Your task to perform on an android device: What's a good restaurant in Sacramento? Image 0: 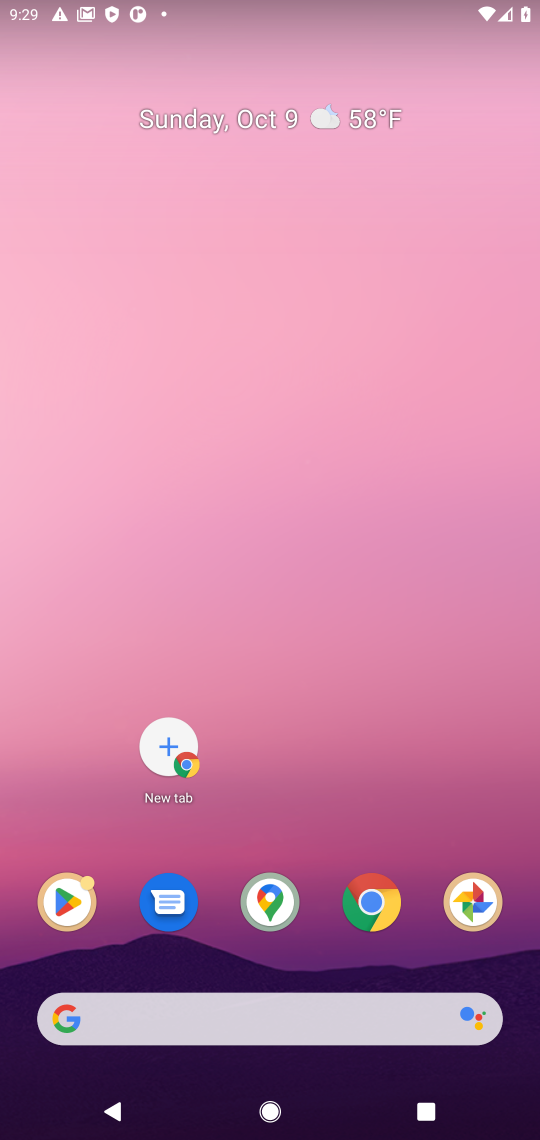
Step 0: click (363, 899)
Your task to perform on an android device: What's a good restaurant in Sacramento? Image 1: 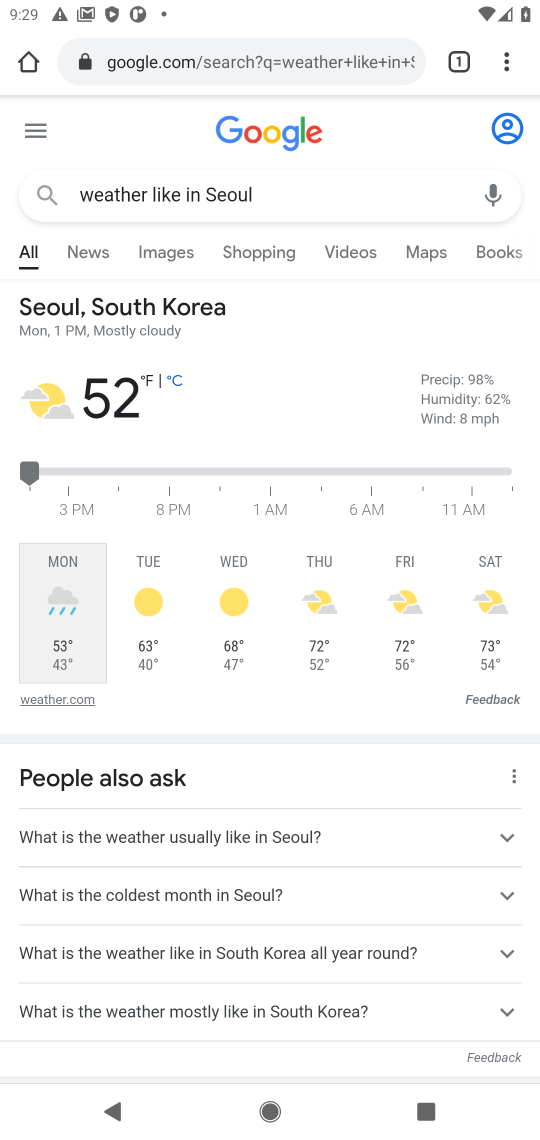
Step 1: click (310, 65)
Your task to perform on an android device: What's a good restaurant in Sacramento? Image 2: 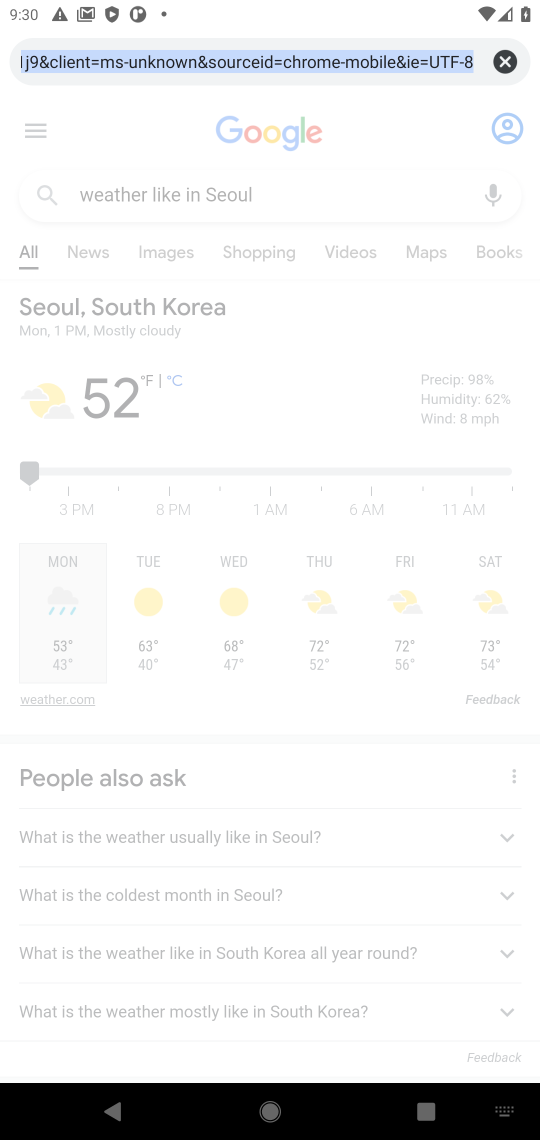
Step 2: type "good restaurant in Sacramento"
Your task to perform on an android device: What's a good restaurant in Sacramento? Image 3: 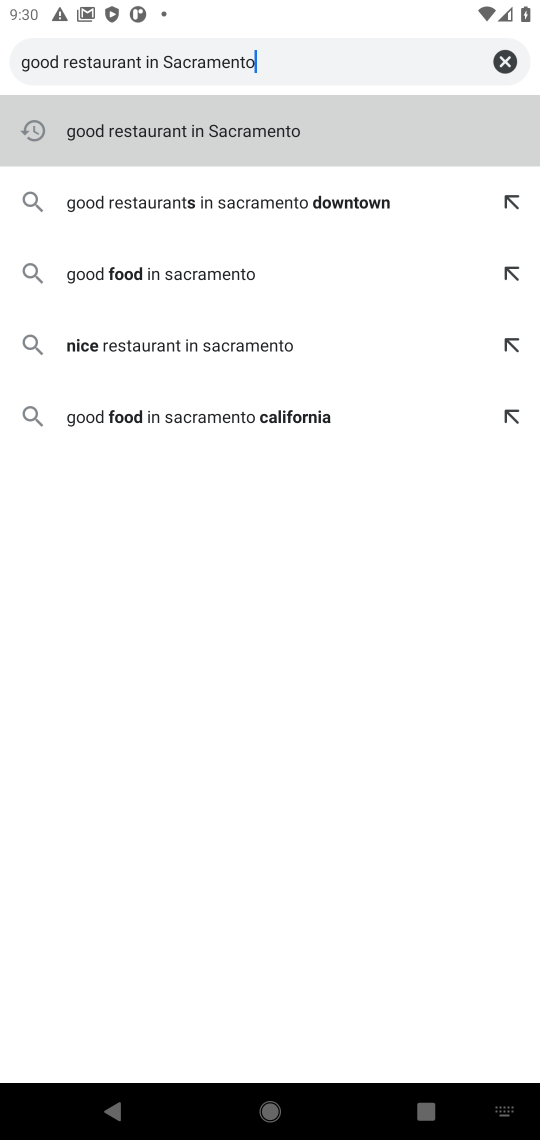
Step 3: click (328, 141)
Your task to perform on an android device: What's a good restaurant in Sacramento? Image 4: 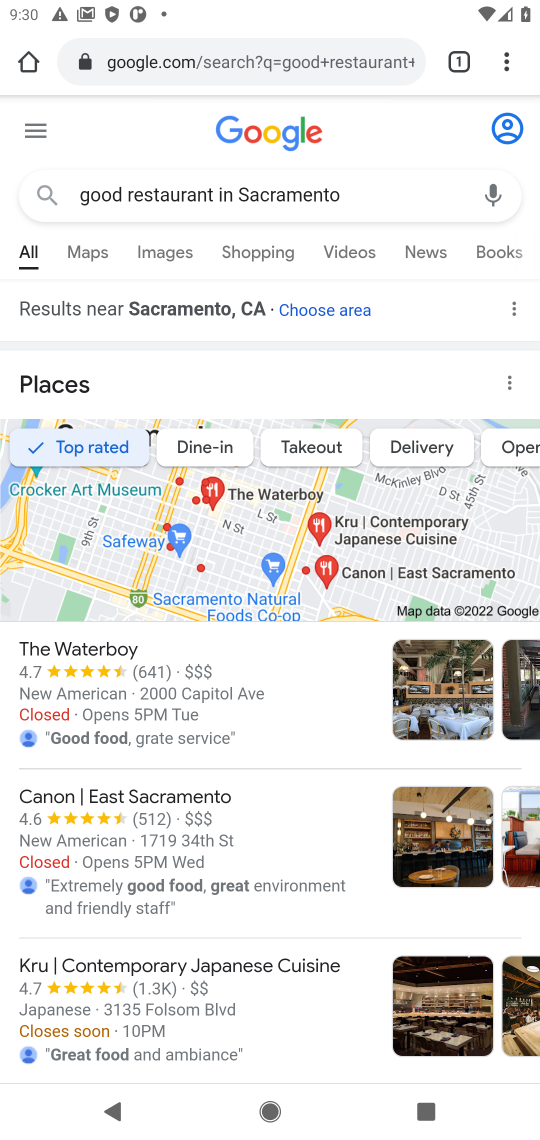
Step 4: drag from (291, 851) to (287, 410)
Your task to perform on an android device: What's a good restaurant in Sacramento? Image 5: 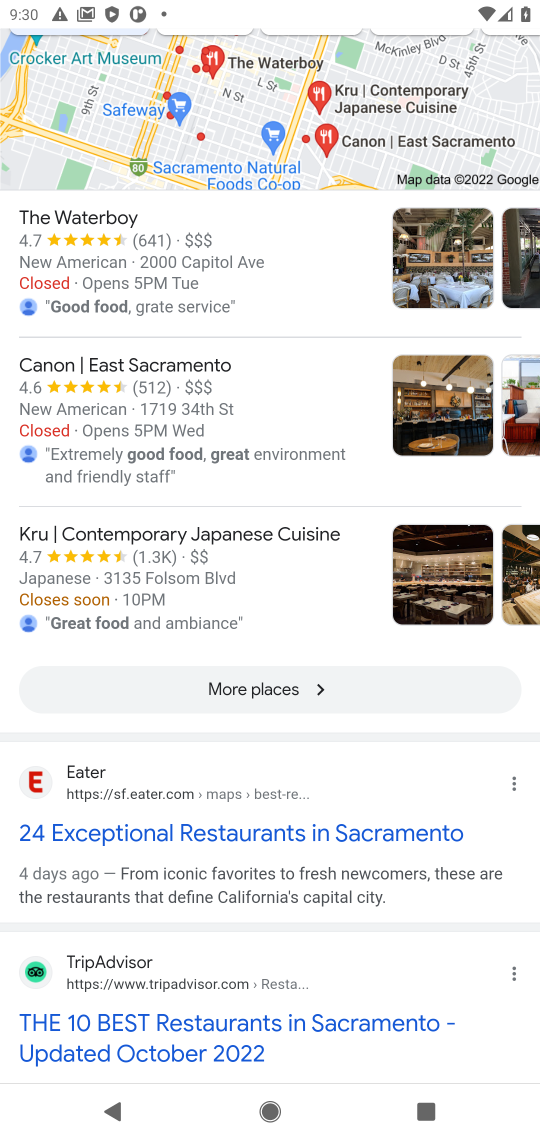
Step 5: click (287, 690)
Your task to perform on an android device: What's a good restaurant in Sacramento? Image 6: 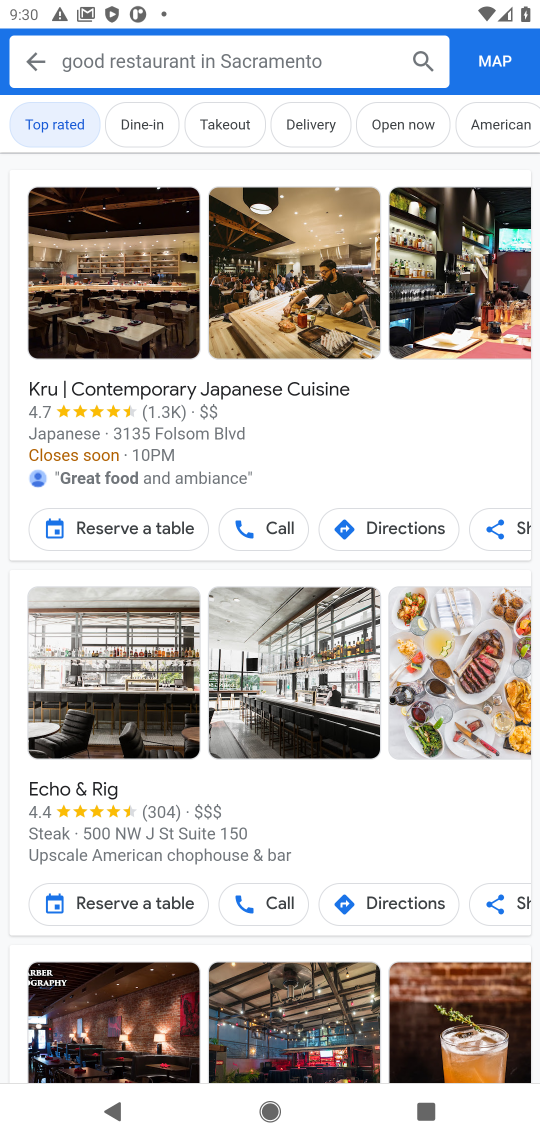
Step 6: task complete